Your task to perform on an android device: delete browsing data in the chrome app Image 0: 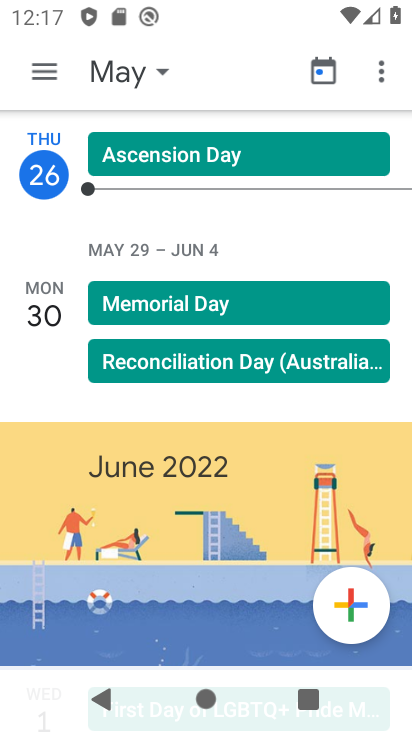
Step 0: press home button
Your task to perform on an android device: delete browsing data in the chrome app Image 1: 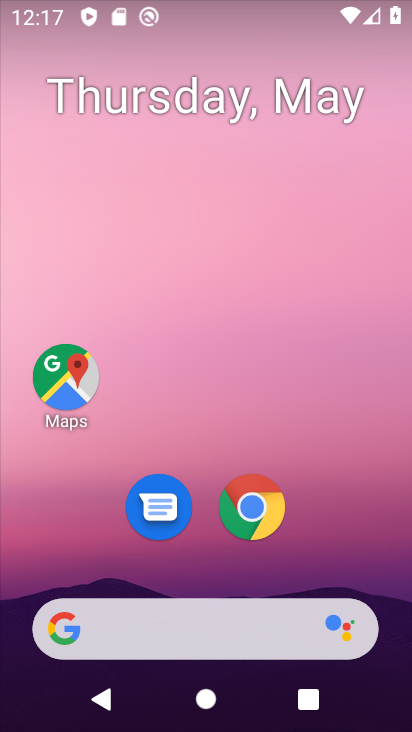
Step 1: click (252, 507)
Your task to perform on an android device: delete browsing data in the chrome app Image 2: 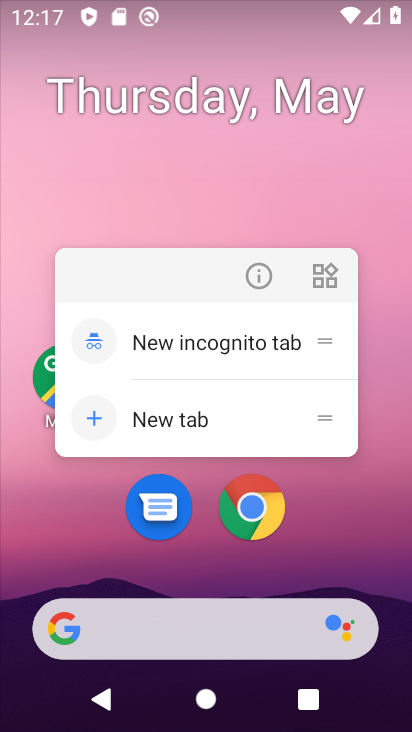
Step 2: click (264, 503)
Your task to perform on an android device: delete browsing data in the chrome app Image 3: 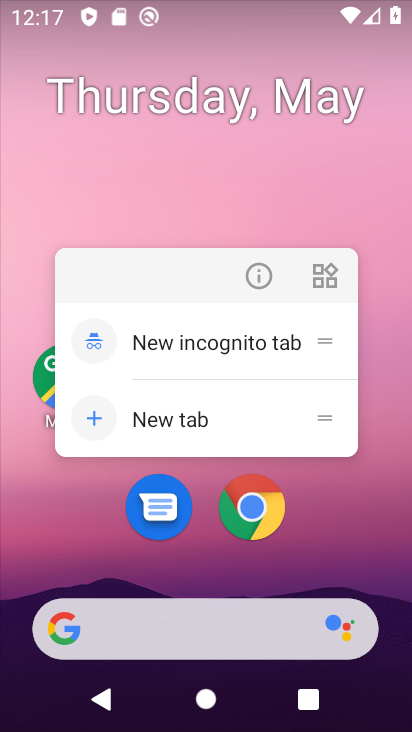
Step 3: click (264, 538)
Your task to perform on an android device: delete browsing data in the chrome app Image 4: 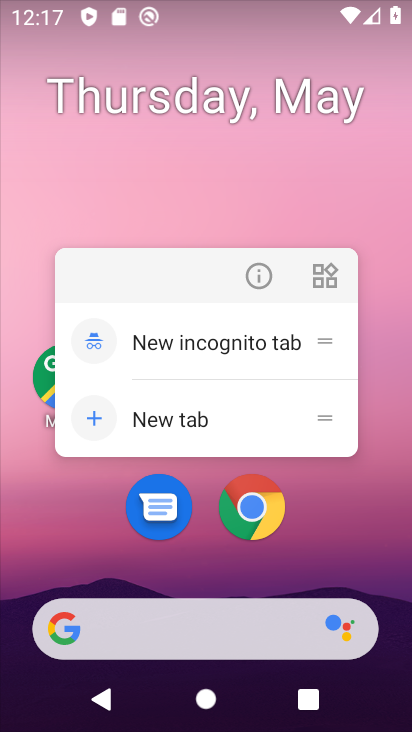
Step 4: click (246, 496)
Your task to perform on an android device: delete browsing data in the chrome app Image 5: 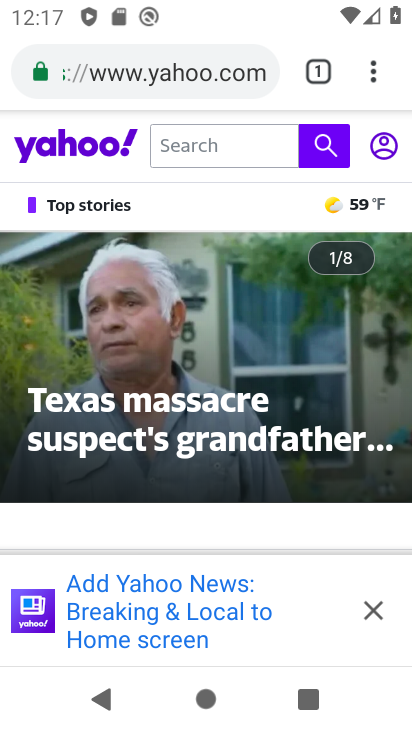
Step 5: drag from (380, 79) to (249, 498)
Your task to perform on an android device: delete browsing data in the chrome app Image 6: 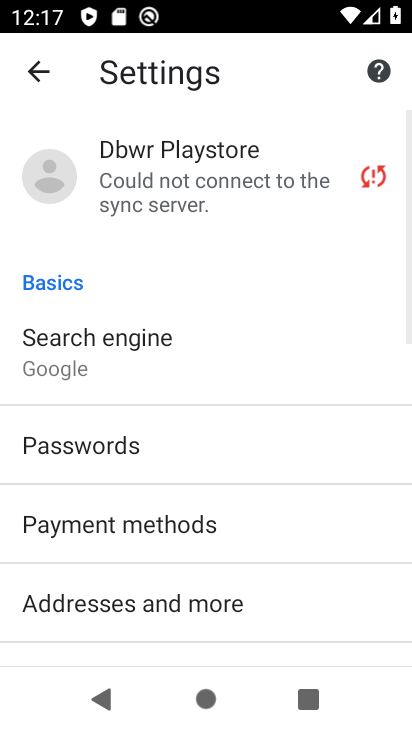
Step 6: drag from (166, 598) to (245, 222)
Your task to perform on an android device: delete browsing data in the chrome app Image 7: 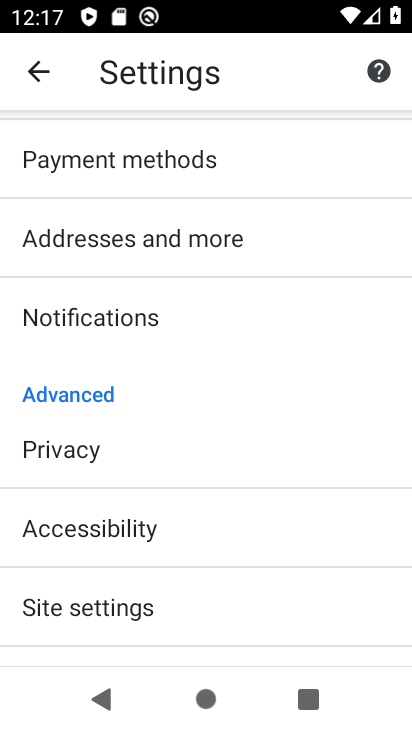
Step 7: click (146, 468)
Your task to perform on an android device: delete browsing data in the chrome app Image 8: 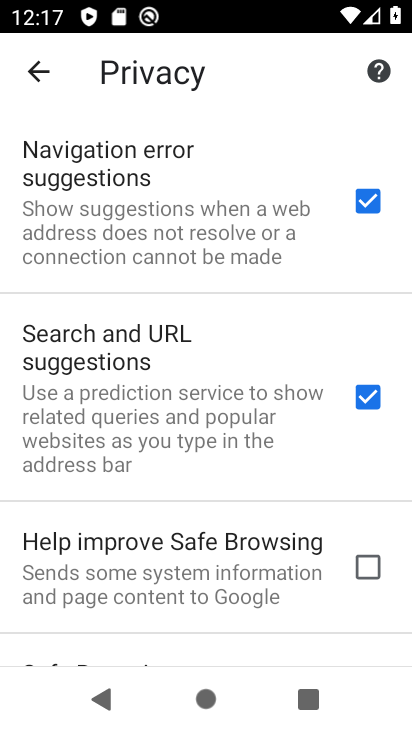
Step 8: drag from (102, 590) to (276, 69)
Your task to perform on an android device: delete browsing data in the chrome app Image 9: 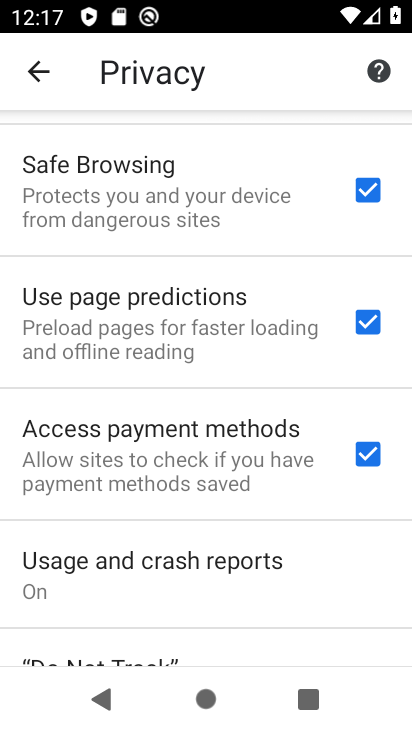
Step 9: drag from (165, 600) to (320, 83)
Your task to perform on an android device: delete browsing data in the chrome app Image 10: 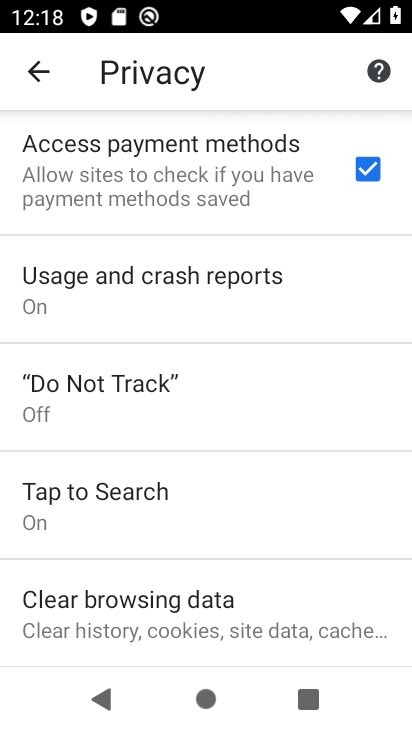
Step 10: click (156, 618)
Your task to perform on an android device: delete browsing data in the chrome app Image 11: 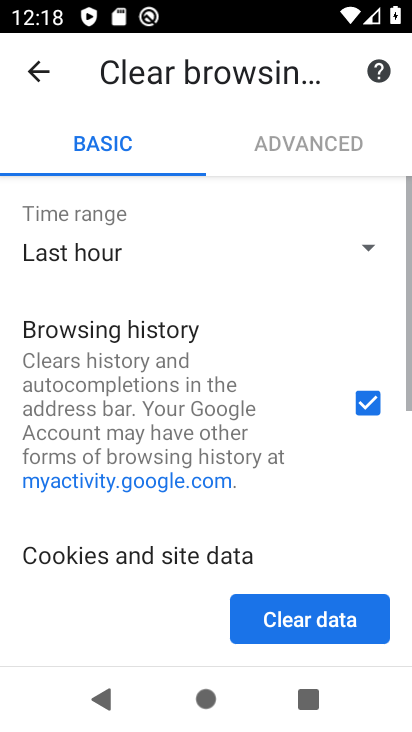
Step 11: drag from (206, 488) to (292, 122)
Your task to perform on an android device: delete browsing data in the chrome app Image 12: 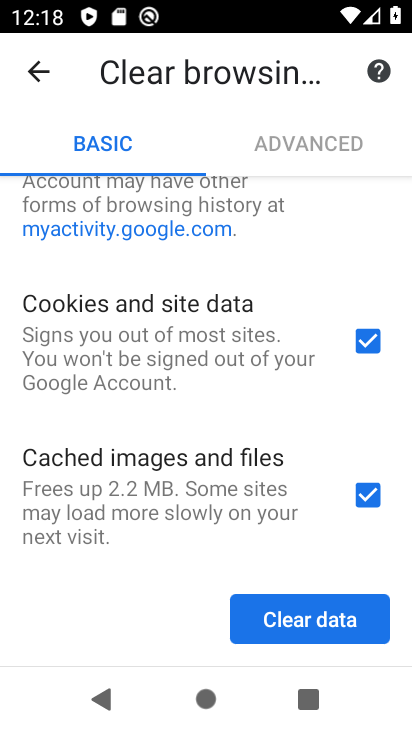
Step 12: click (324, 631)
Your task to perform on an android device: delete browsing data in the chrome app Image 13: 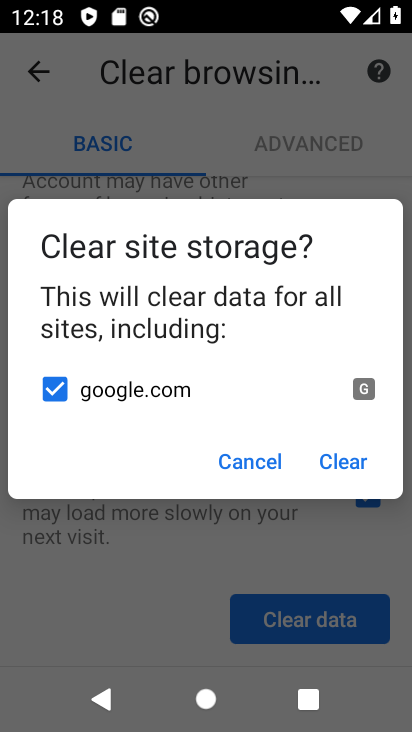
Step 13: click (355, 454)
Your task to perform on an android device: delete browsing data in the chrome app Image 14: 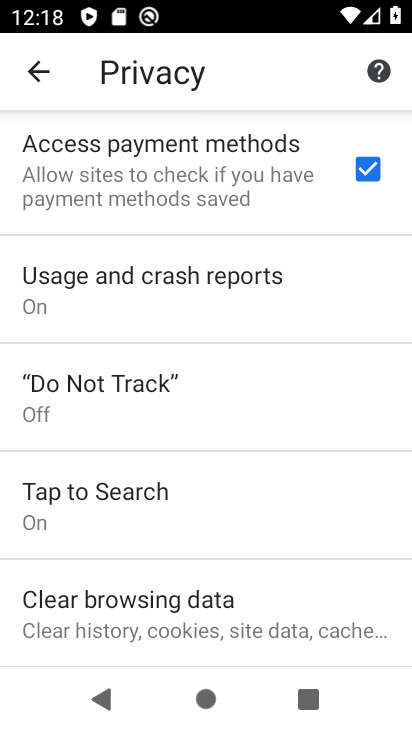
Step 14: task complete